Your task to perform on an android device: What's the weather today? Image 0: 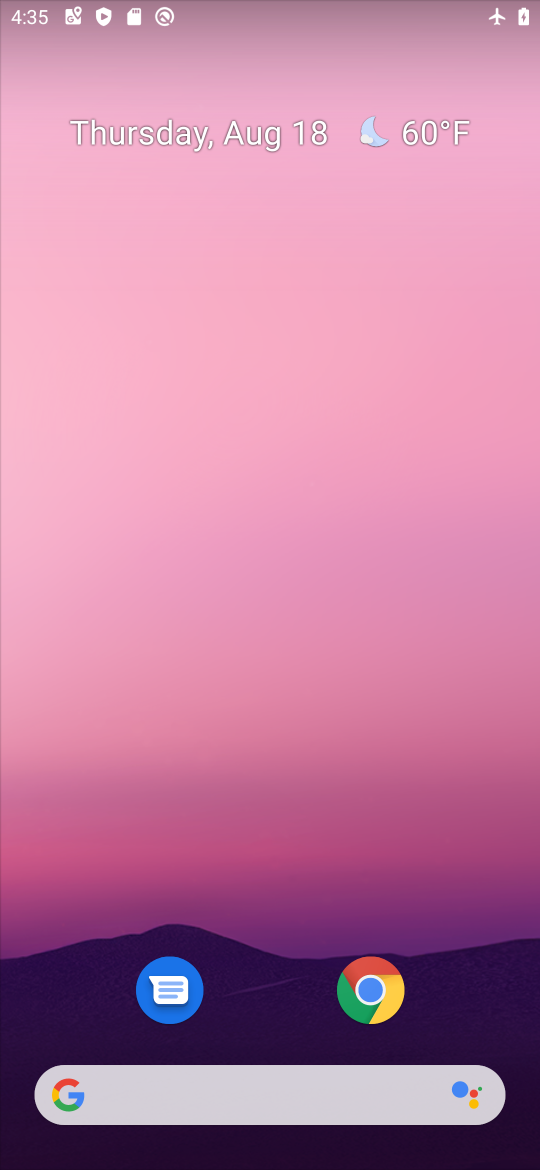
Step 0: click (442, 128)
Your task to perform on an android device: What's the weather today? Image 1: 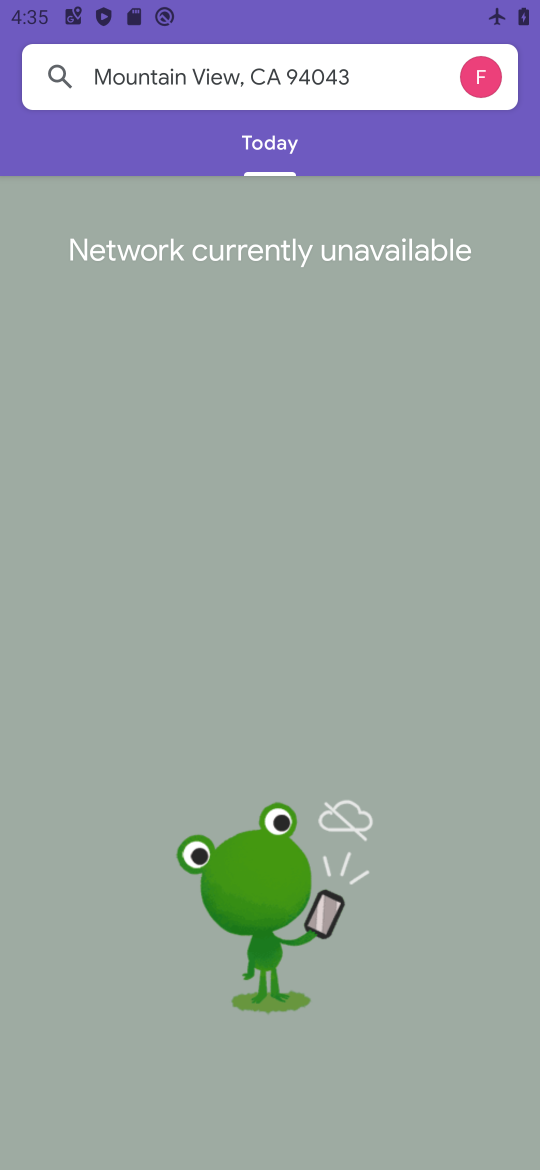
Step 1: task complete